Your task to perform on an android device: delete location history Image 0: 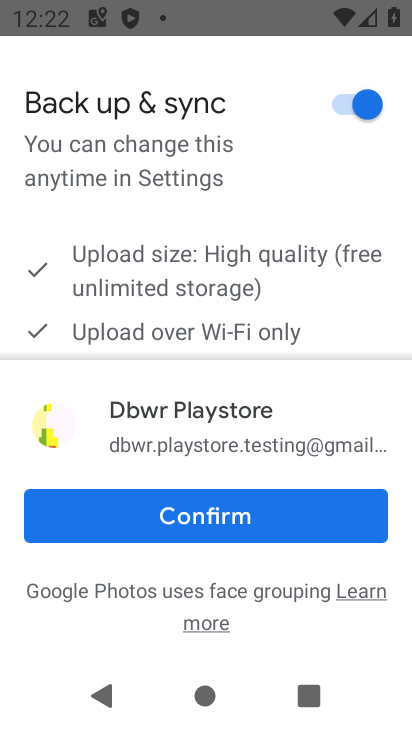
Step 0: press home button
Your task to perform on an android device: delete location history Image 1: 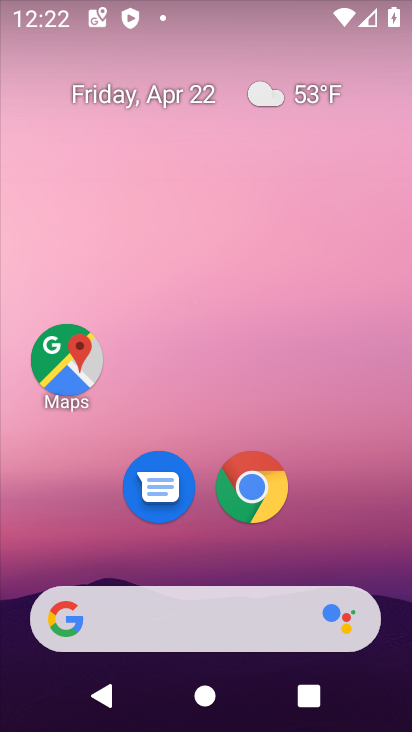
Step 1: click (70, 374)
Your task to perform on an android device: delete location history Image 2: 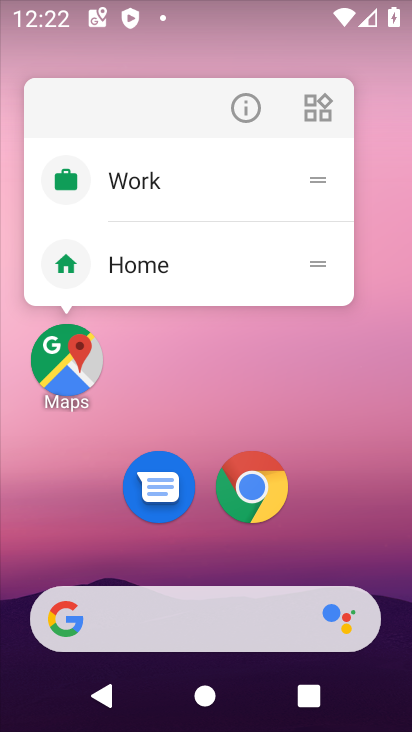
Step 2: click (70, 376)
Your task to perform on an android device: delete location history Image 3: 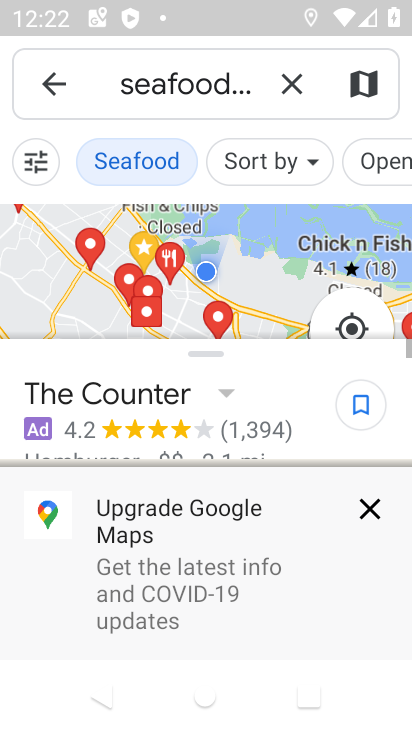
Step 3: click (58, 81)
Your task to perform on an android device: delete location history Image 4: 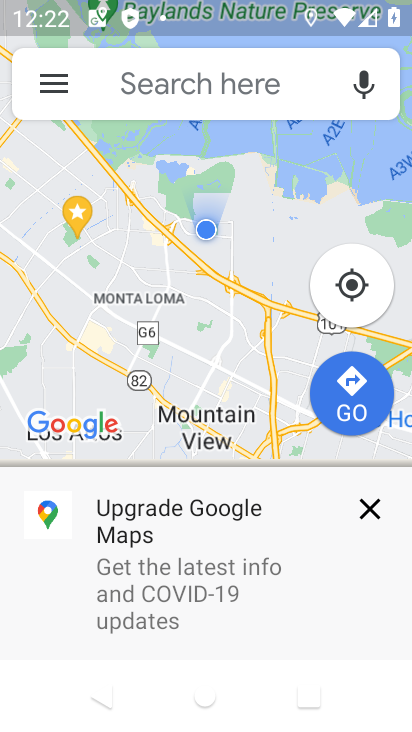
Step 4: click (44, 76)
Your task to perform on an android device: delete location history Image 5: 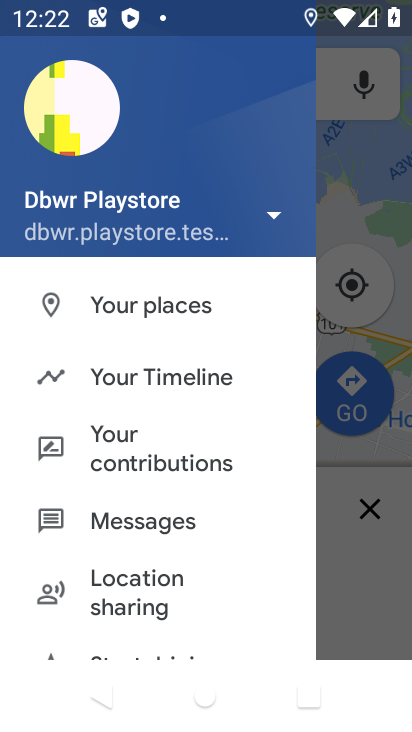
Step 5: click (174, 378)
Your task to perform on an android device: delete location history Image 6: 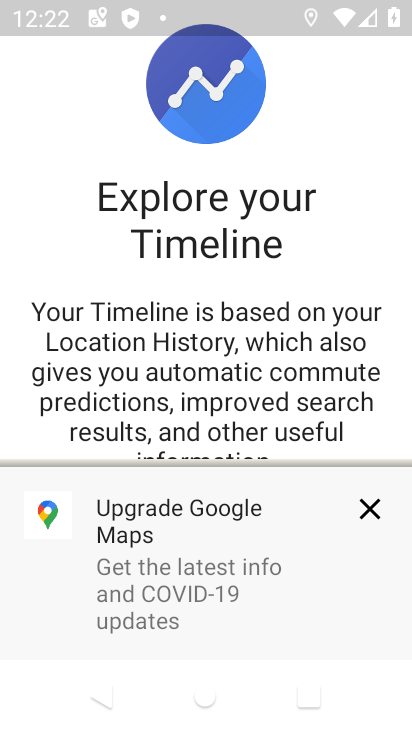
Step 6: click (364, 504)
Your task to perform on an android device: delete location history Image 7: 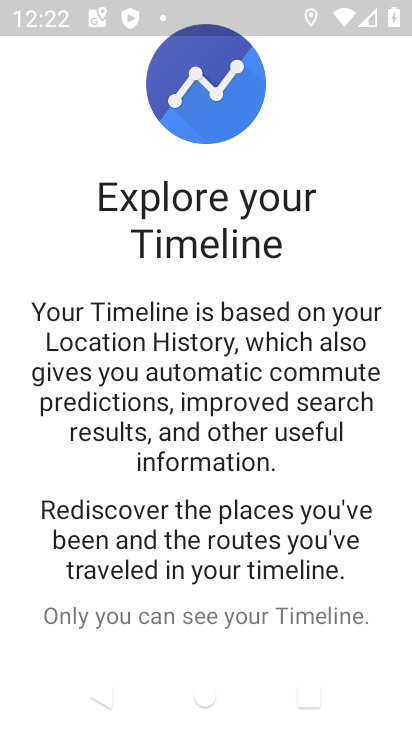
Step 7: drag from (261, 516) to (249, 212)
Your task to perform on an android device: delete location history Image 8: 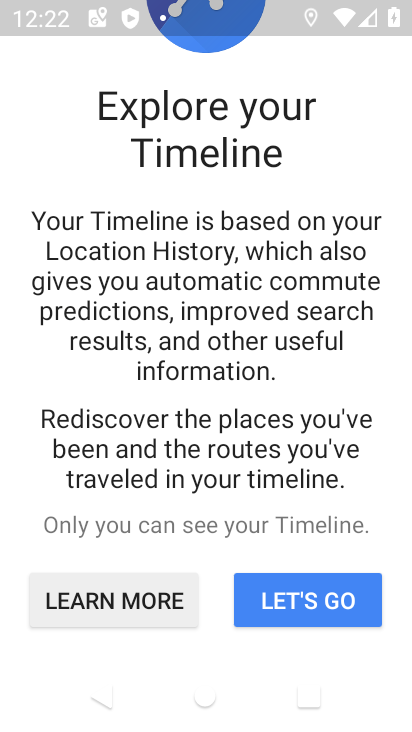
Step 8: click (275, 607)
Your task to perform on an android device: delete location history Image 9: 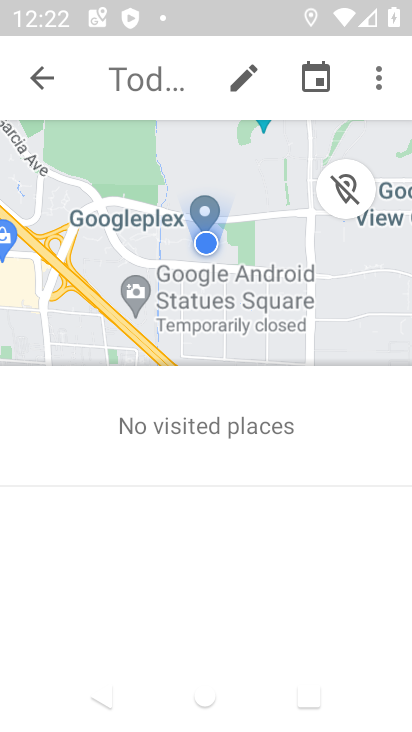
Step 9: click (376, 77)
Your task to perform on an android device: delete location history Image 10: 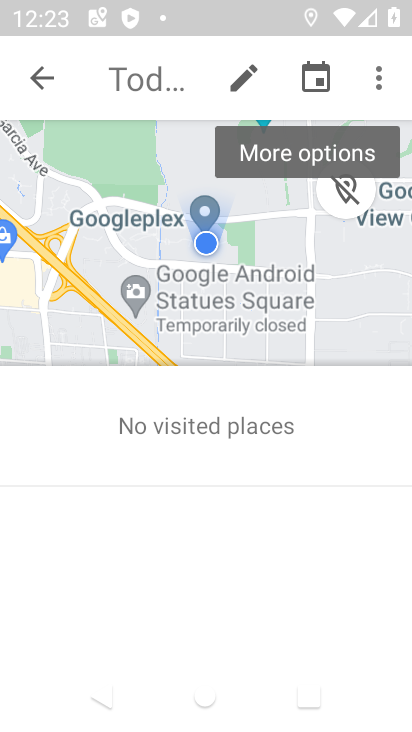
Step 10: click (376, 79)
Your task to perform on an android device: delete location history Image 11: 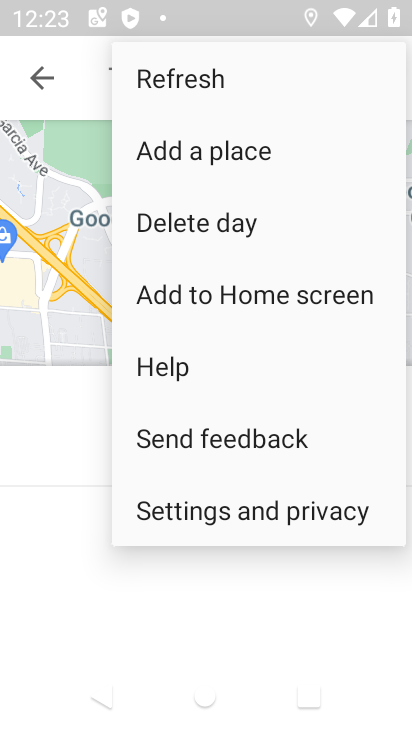
Step 11: click (336, 512)
Your task to perform on an android device: delete location history Image 12: 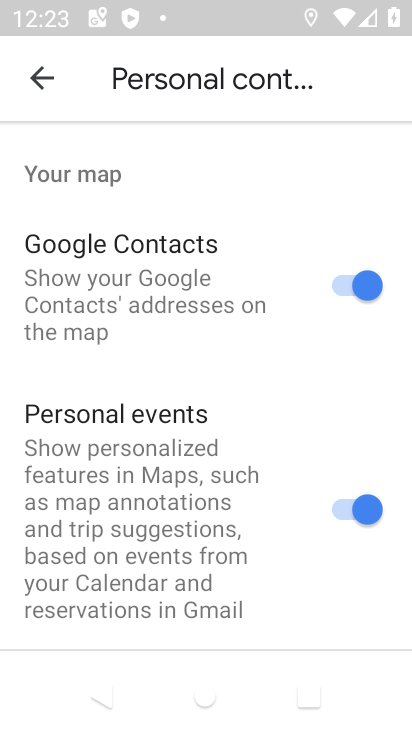
Step 12: drag from (252, 571) to (226, 239)
Your task to perform on an android device: delete location history Image 13: 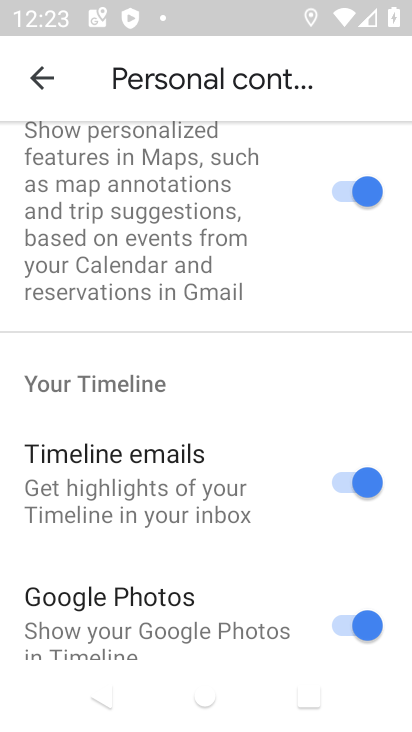
Step 13: drag from (240, 539) to (232, 171)
Your task to perform on an android device: delete location history Image 14: 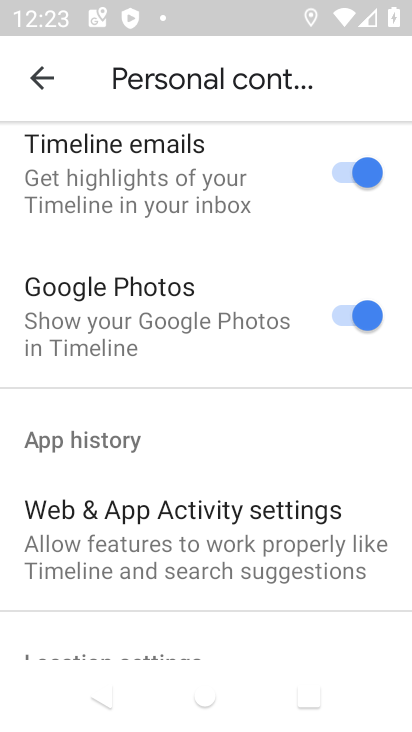
Step 14: drag from (221, 536) to (223, 216)
Your task to perform on an android device: delete location history Image 15: 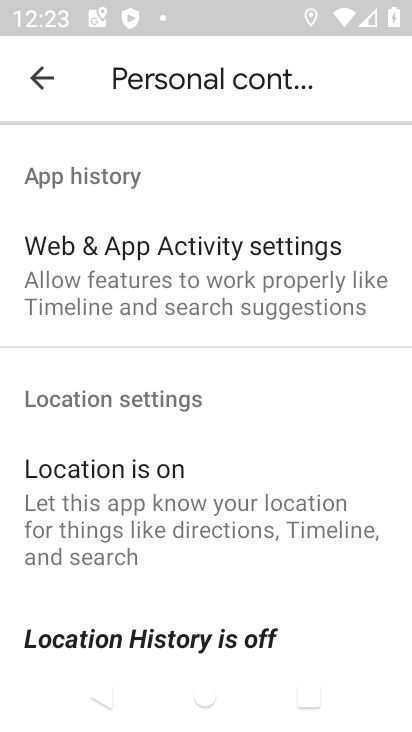
Step 15: drag from (238, 560) to (218, 281)
Your task to perform on an android device: delete location history Image 16: 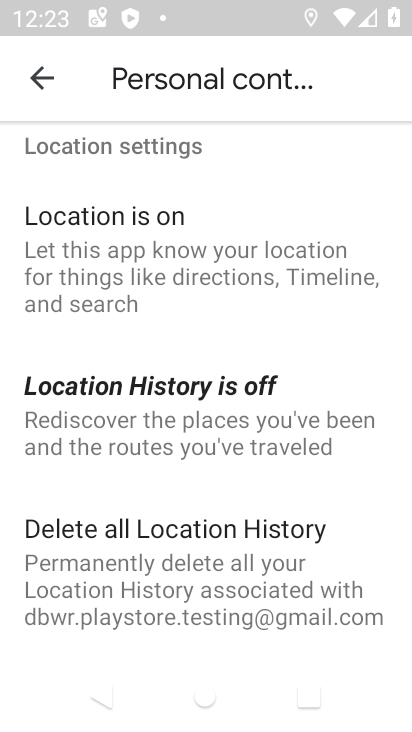
Step 16: click (228, 570)
Your task to perform on an android device: delete location history Image 17: 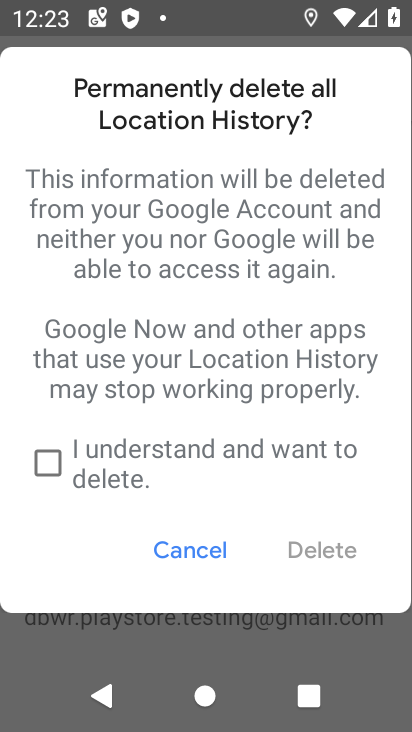
Step 17: click (53, 460)
Your task to perform on an android device: delete location history Image 18: 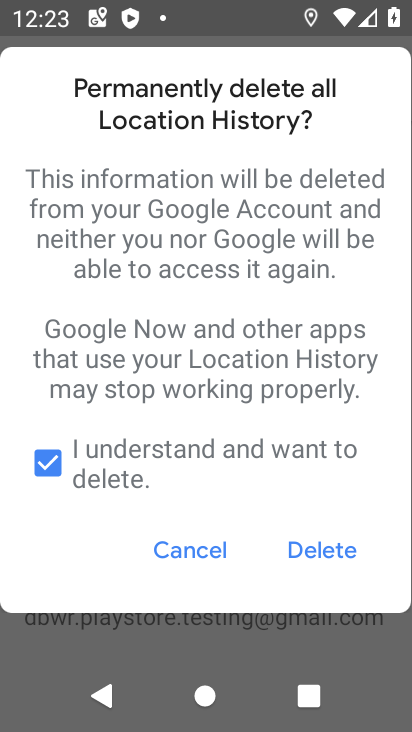
Step 18: click (314, 538)
Your task to perform on an android device: delete location history Image 19: 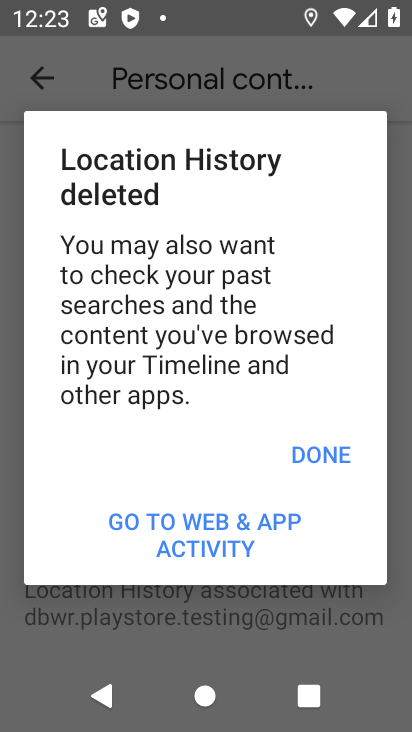
Step 19: click (327, 445)
Your task to perform on an android device: delete location history Image 20: 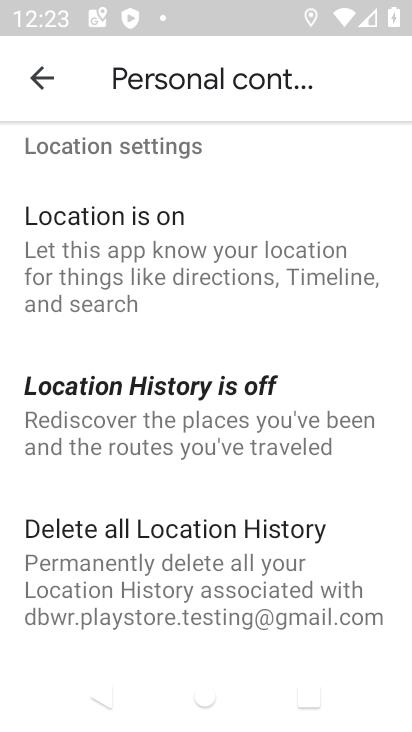
Step 20: task complete